Your task to perform on an android device: Check the weather Image 0: 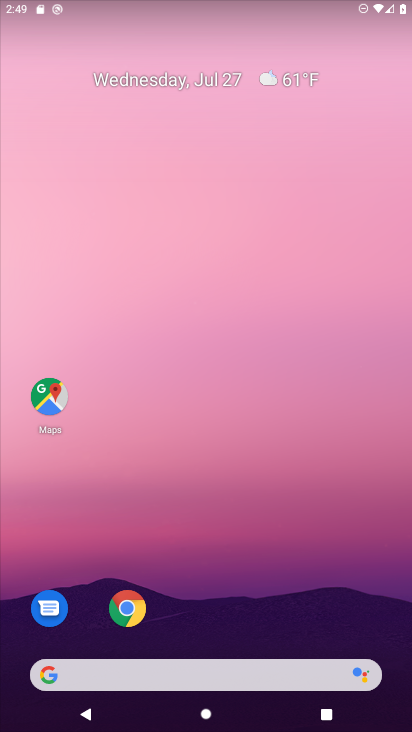
Step 0: click (286, 682)
Your task to perform on an android device: Check the weather Image 1: 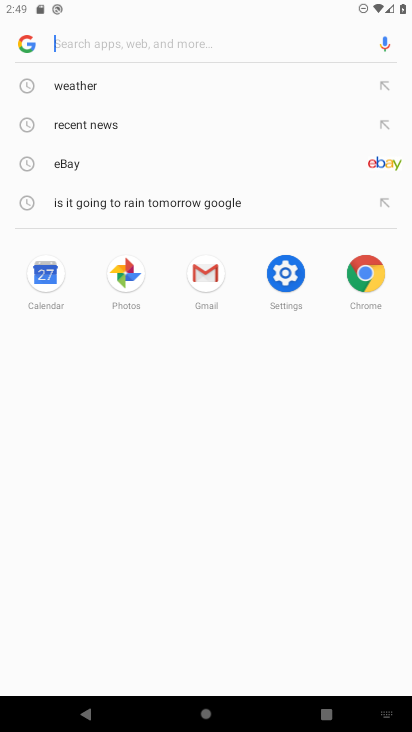
Step 1: click (117, 88)
Your task to perform on an android device: Check the weather Image 2: 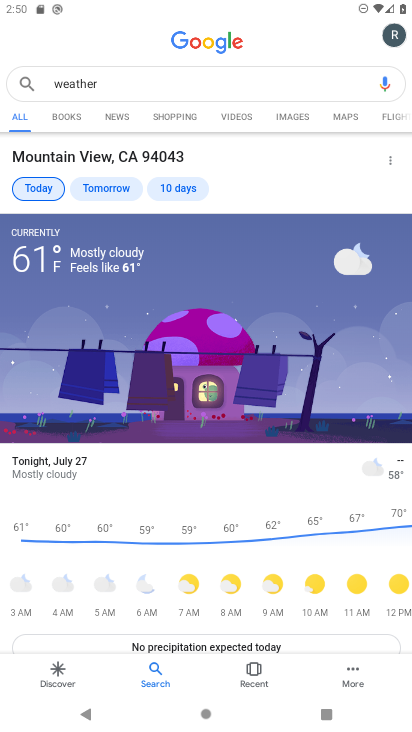
Step 2: task complete